Your task to perform on an android device: open app "Adobe Acrobat Reader: Edit PDF" Image 0: 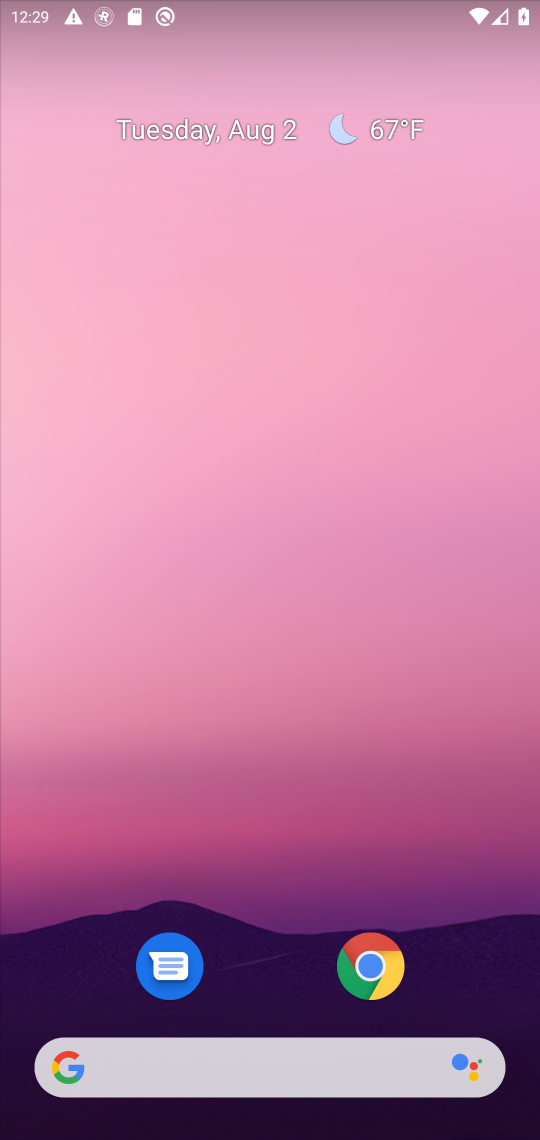
Step 0: press home button
Your task to perform on an android device: open app "Adobe Acrobat Reader: Edit PDF" Image 1: 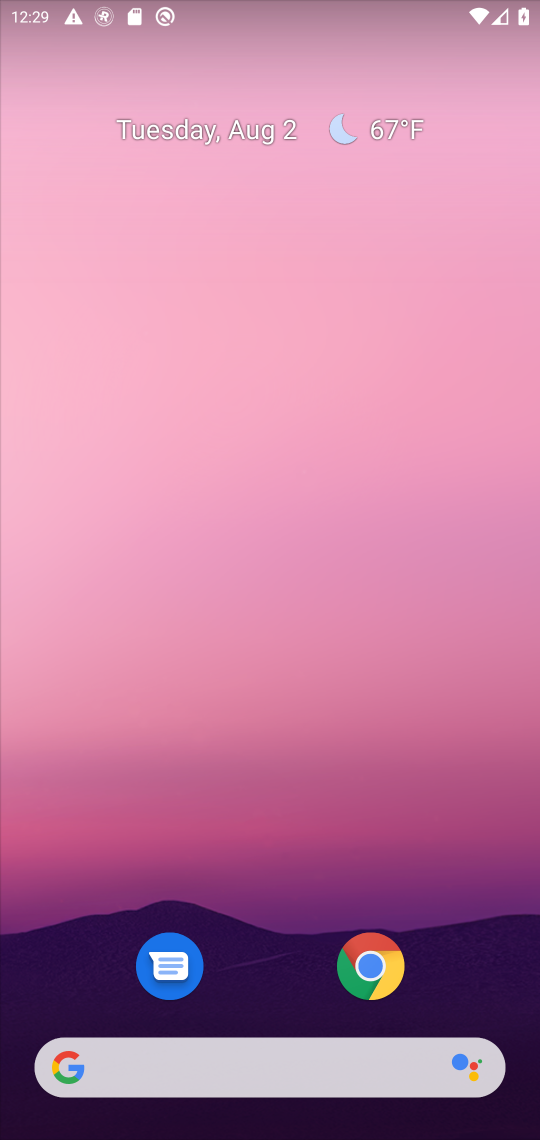
Step 1: drag from (296, 722) to (388, 120)
Your task to perform on an android device: open app "Adobe Acrobat Reader: Edit PDF" Image 2: 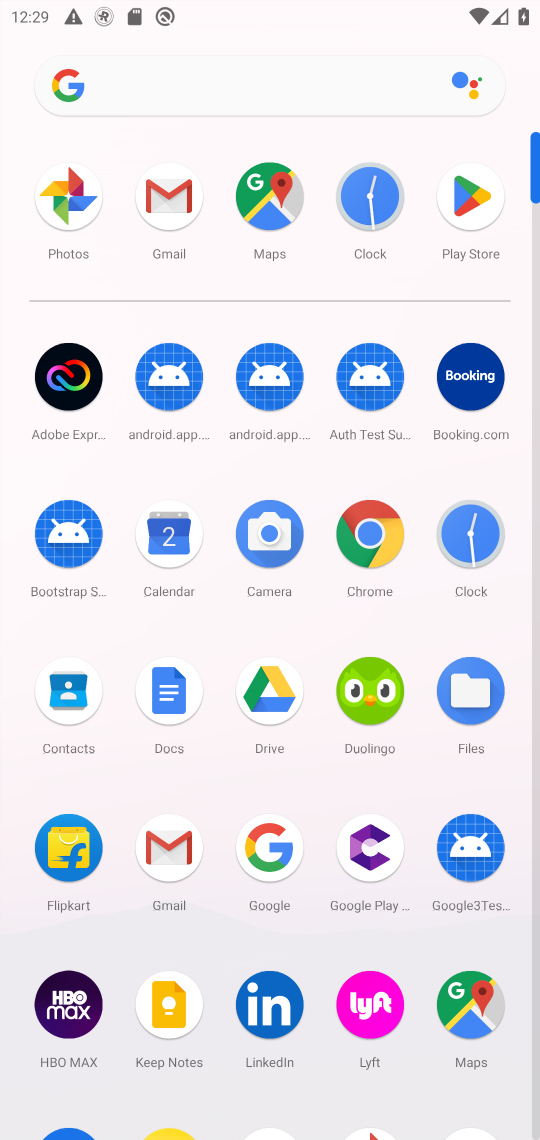
Step 2: click (456, 191)
Your task to perform on an android device: open app "Adobe Acrobat Reader: Edit PDF" Image 3: 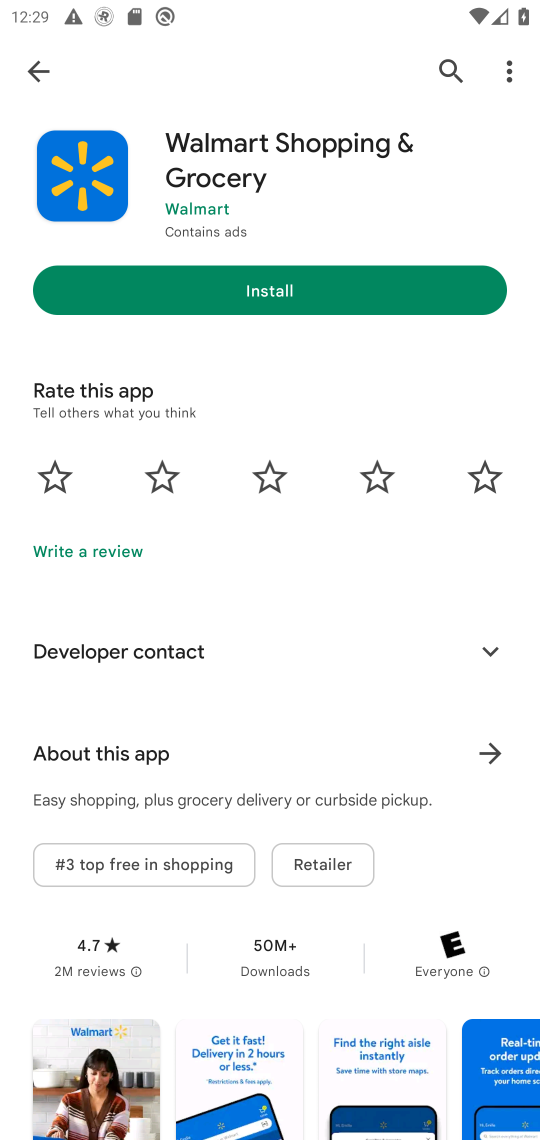
Step 3: click (456, 70)
Your task to perform on an android device: open app "Adobe Acrobat Reader: Edit PDF" Image 4: 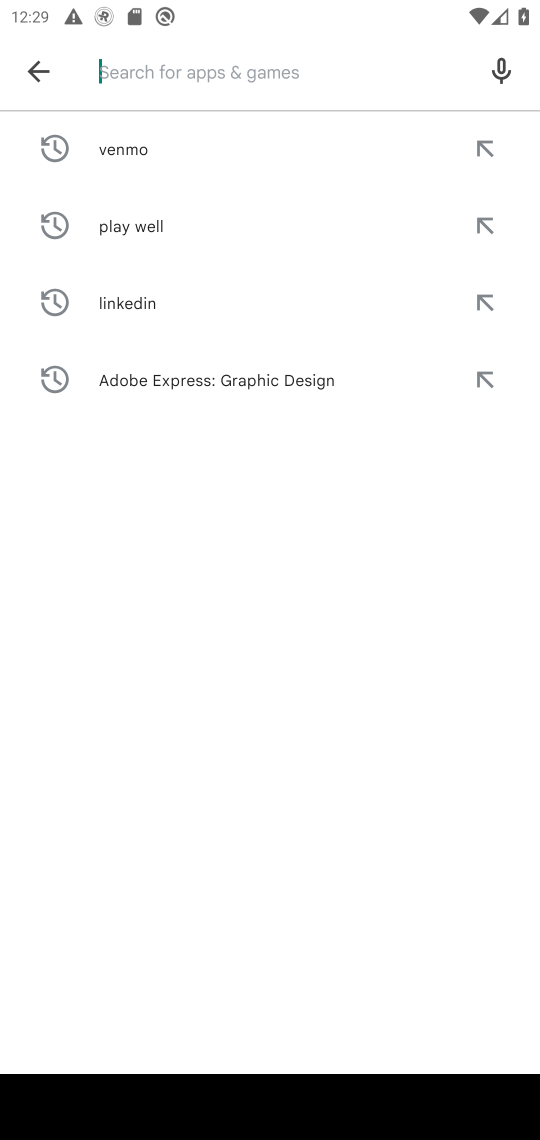
Step 4: type "Adobe Acrobat Reader: Edit PDF"
Your task to perform on an android device: open app "Adobe Acrobat Reader: Edit PDF" Image 5: 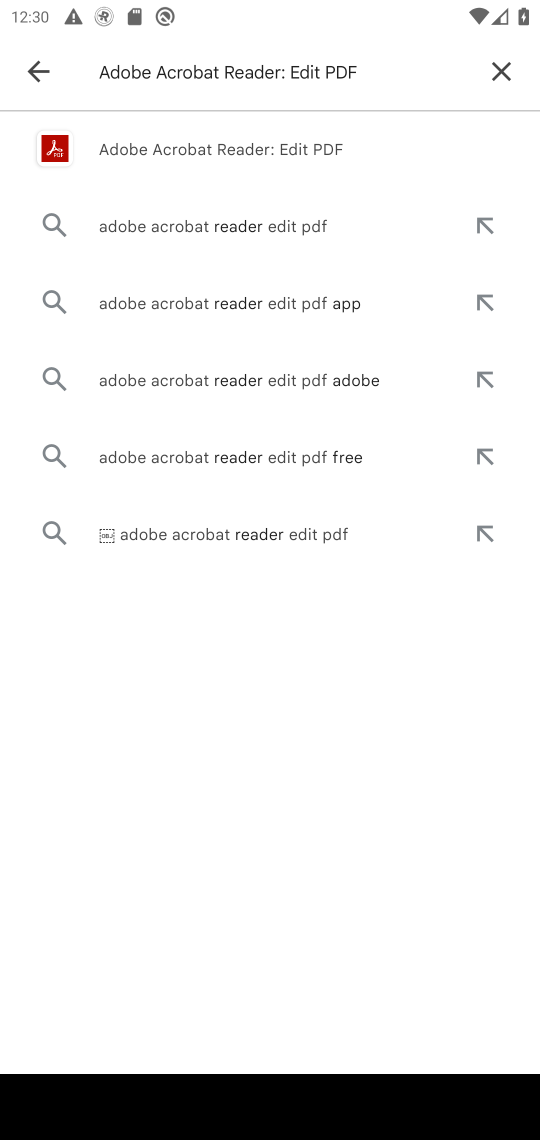
Step 5: click (328, 152)
Your task to perform on an android device: open app "Adobe Acrobat Reader: Edit PDF" Image 6: 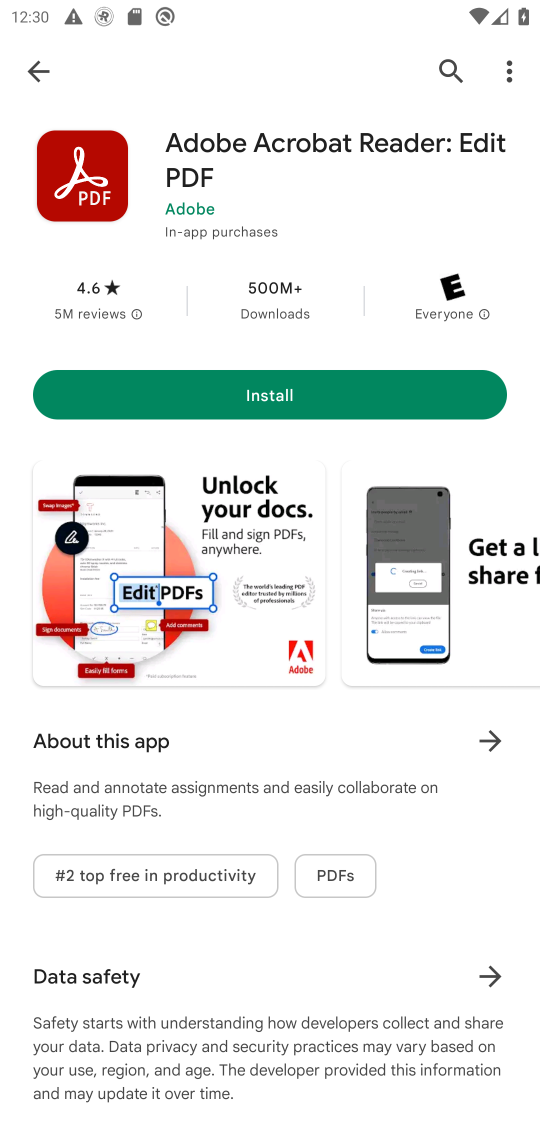
Step 6: task complete